Your task to perform on an android device: Show me the alarms in the clock app Image 0: 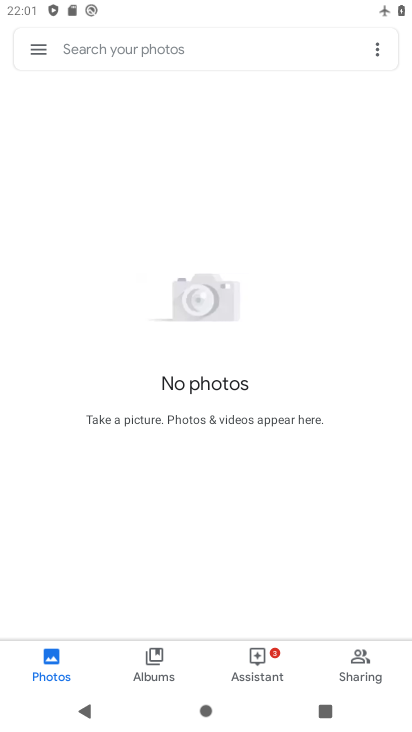
Step 0: press home button
Your task to perform on an android device: Show me the alarms in the clock app Image 1: 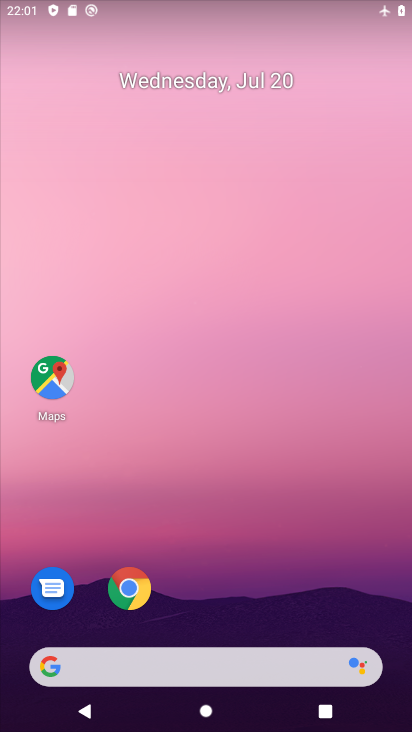
Step 1: drag from (378, 618) to (323, 5)
Your task to perform on an android device: Show me the alarms in the clock app Image 2: 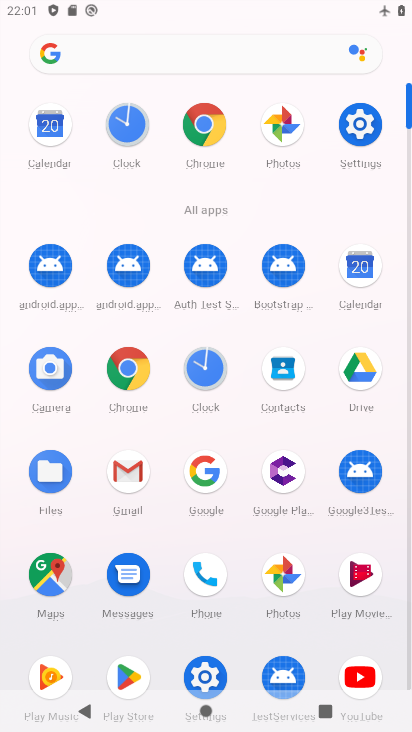
Step 2: click (199, 368)
Your task to perform on an android device: Show me the alarms in the clock app Image 3: 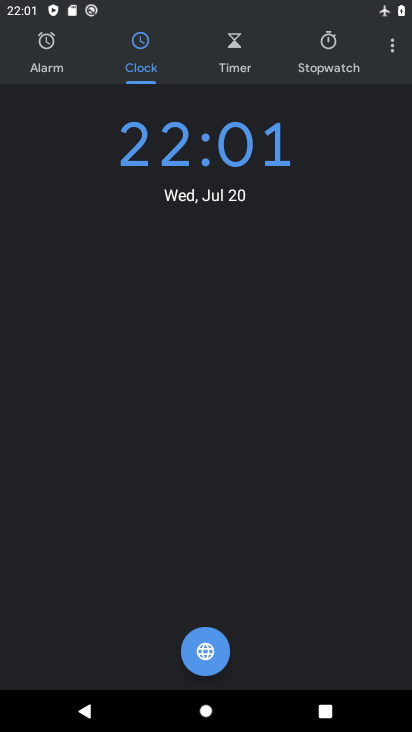
Step 3: click (390, 52)
Your task to perform on an android device: Show me the alarms in the clock app Image 4: 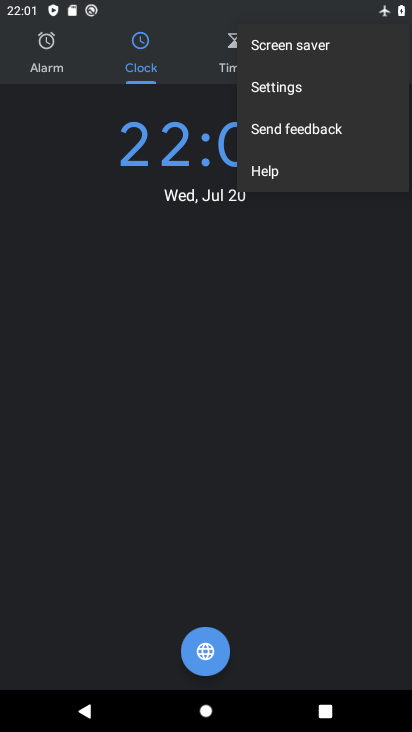
Step 4: click (335, 268)
Your task to perform on an android device: Show me the alarms in the clock app Image 5: 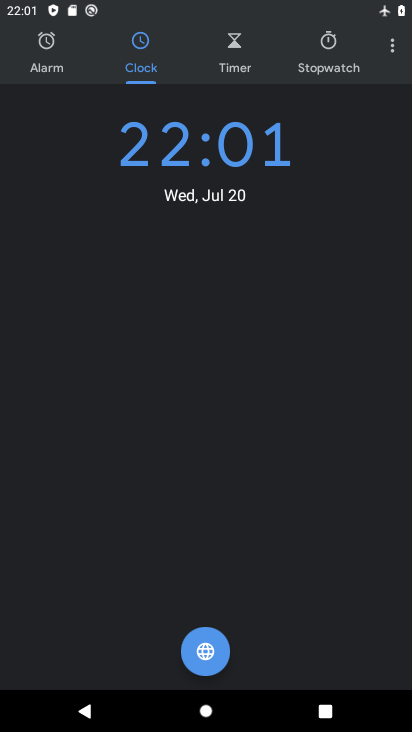
Step 5: click (40, 40)
Your task to perform on an android device: Show me the alarms in the clock app Image 6: 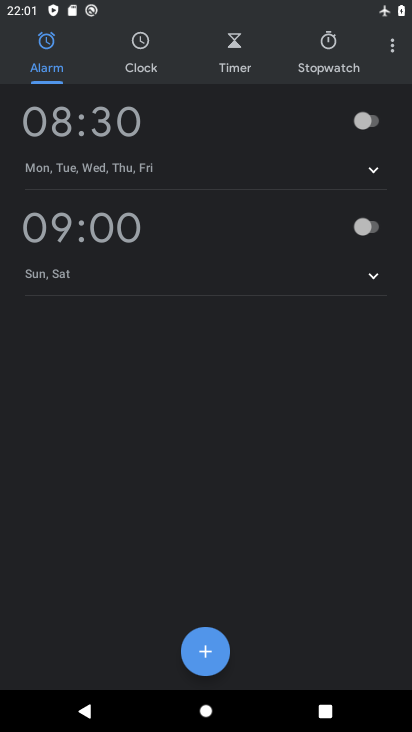
Step 6: task complete